Your task to perform on an android device: Open Youtube and go to "Your channel" Image 0: 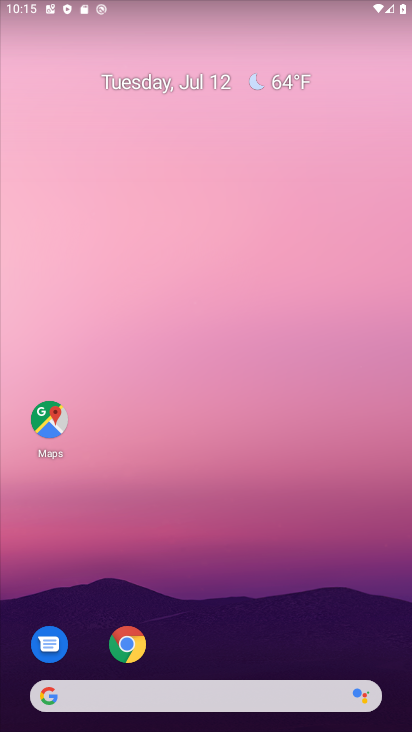
Step 0: drag from (249, 642) to (275, 145)
Your task to perform on an android device: Open Youtube and go to "Your channel" Image 1: 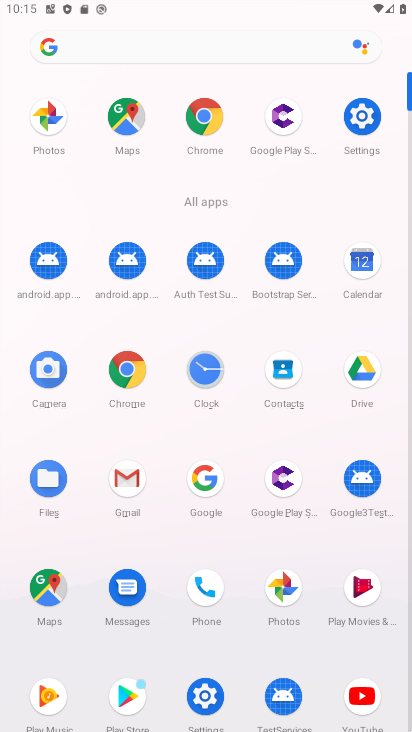
Step 1: click (378, 686)
Your task to perform on an android device: Open Youtube and go to "Your channel" Image 2: 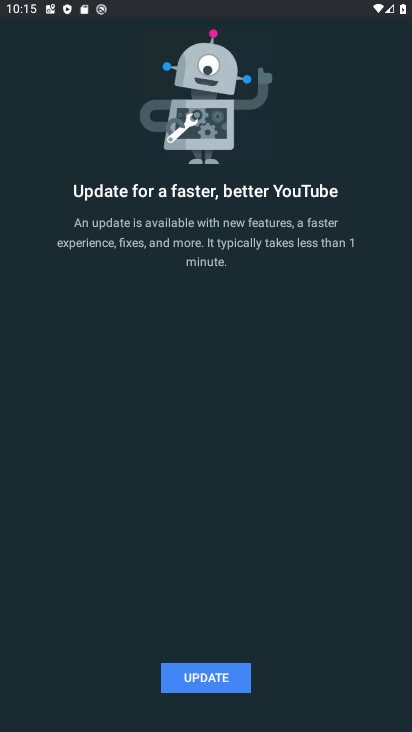
Step 2: click (205, 689)
Your task to perform on an android device: Open Youtube and go to "Your channel" Image 3: 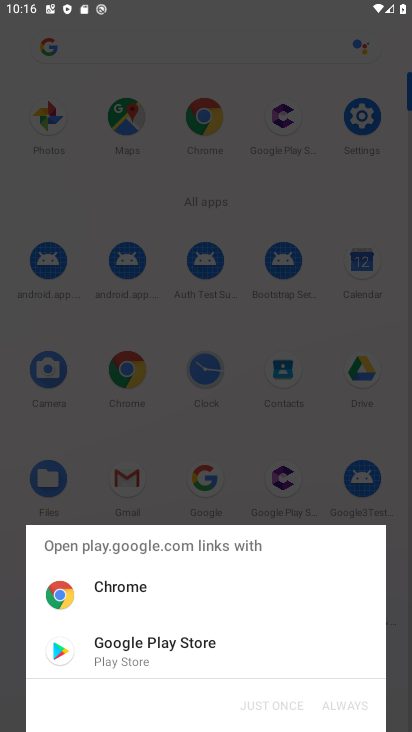
Step 3: click (125, 643)
Your task to perform on an android device: Open Youtube and go to "Your channel" Image 4: 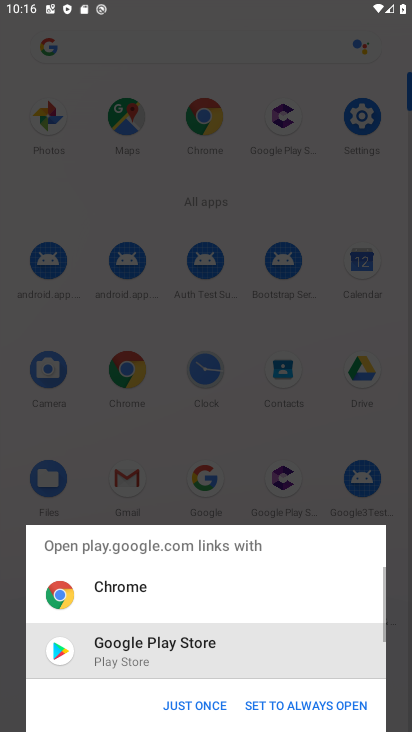
Step 4: click (220, 705)
Your task to perform on an android device: Open Youtube and go to "Your channel" Image 5: 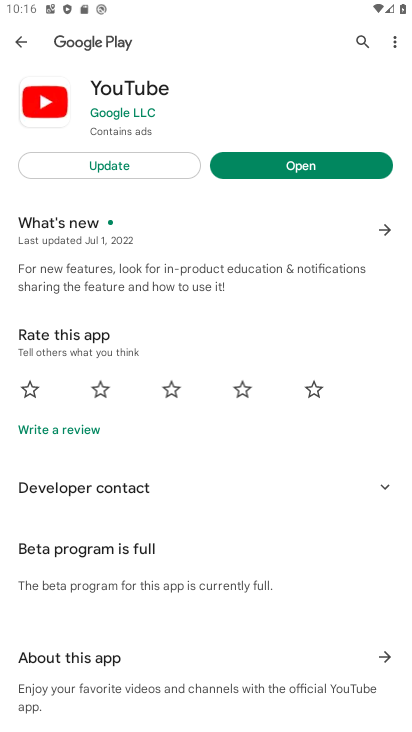
Step 5: click (119, 180)
Your task to perform on an android device: Open Youtube and go to "Your channel" Image 6: 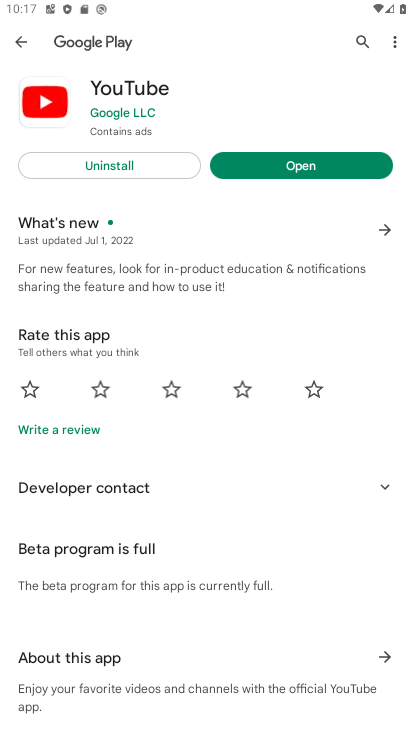
Step 6: click (376, 165)
Your task to perform on an android device: Open Youtube and go to "Your channel" Image 7: 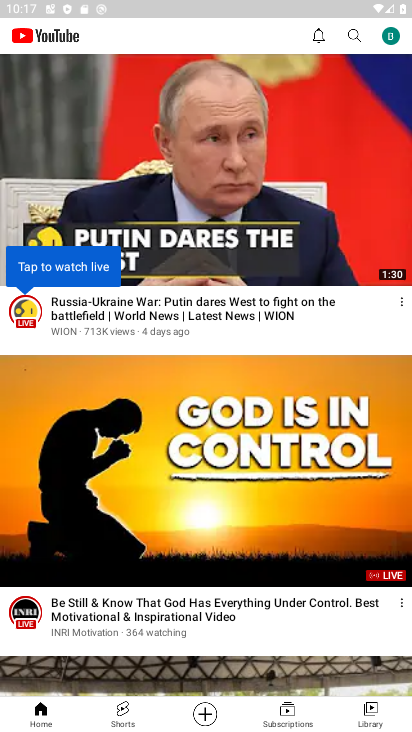
Step 7: click (358, 722)
Your task to perform on an android device: Open Youtube and go to "Your channel" Image 8: 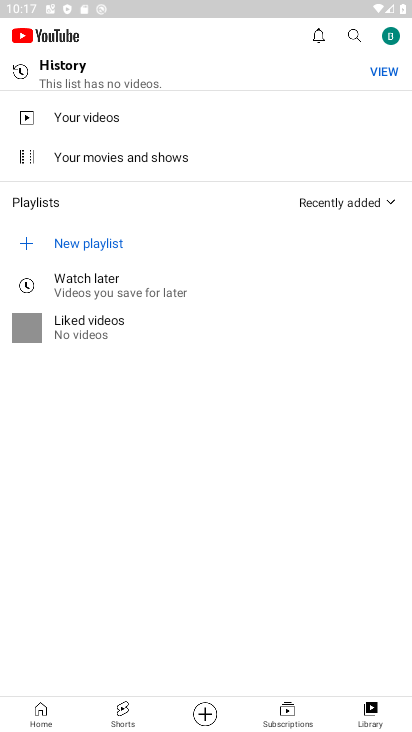
Step 8: click (398, 51)
Your task to perform on an android device: Open Youtube and go to "Your channel" Image 9: 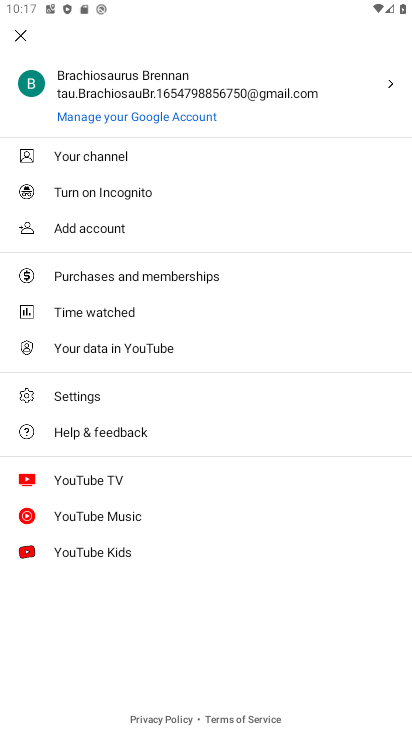
Step 9: click (113, 160)
Your task to perform on an android device: Open Youtube and go to "Your channel" Image 10: 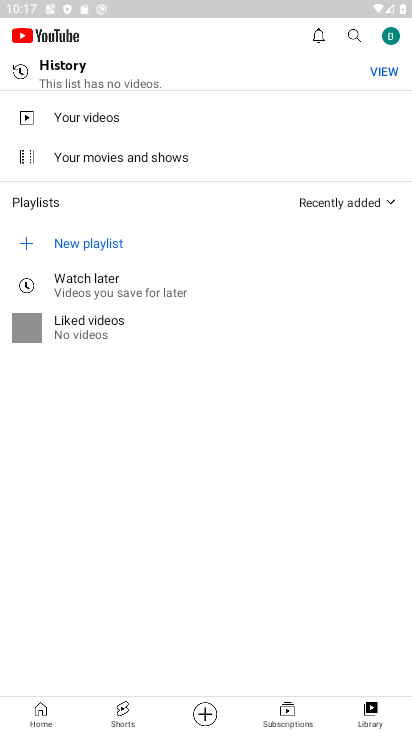
Step 10: task complete